Your task to perform on an android device: Open location settings Image 0: 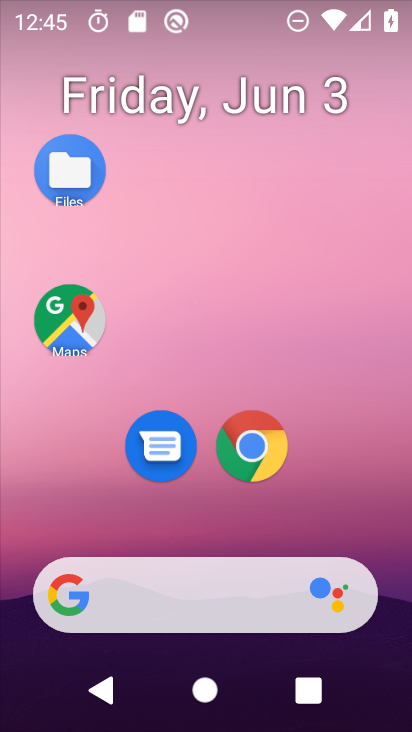
Step 0: drag from (250, 624) to (156, 101)
Your task to perform on an android device: Open location settings Image 1: 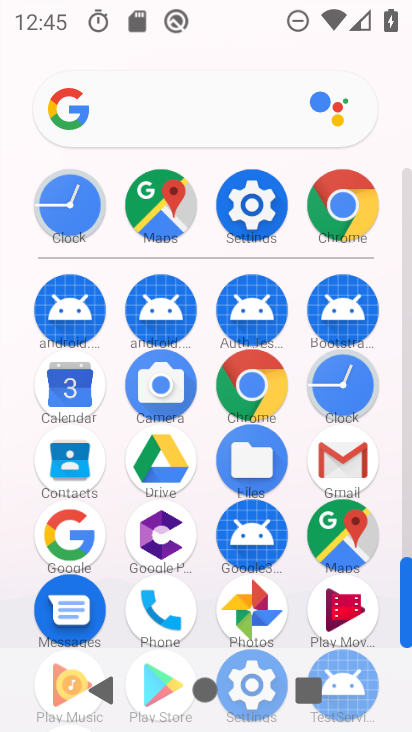
Step 1: click (251, 196)
Your task to perform on an android device: Open location settings Image 2: 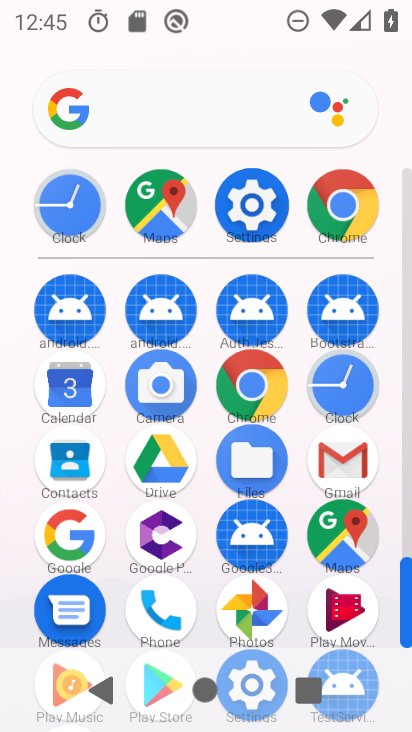
Step 2: click (251, 199)
Your task to perform on an android device: Open location settings Image 3: 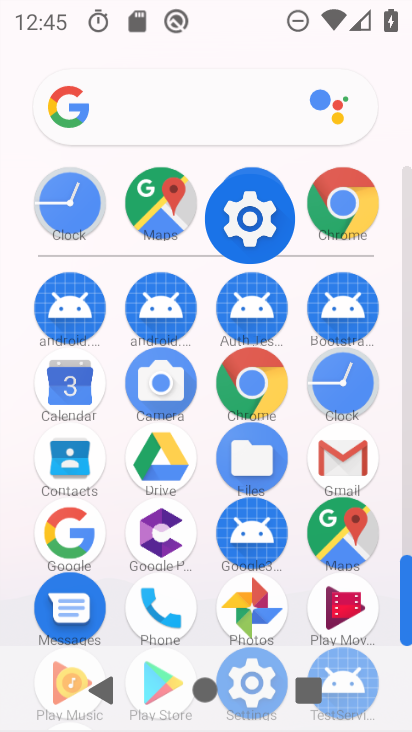
Step 3: click (249, 207)
Your task to perform on an android device: Open location settings Image 4: 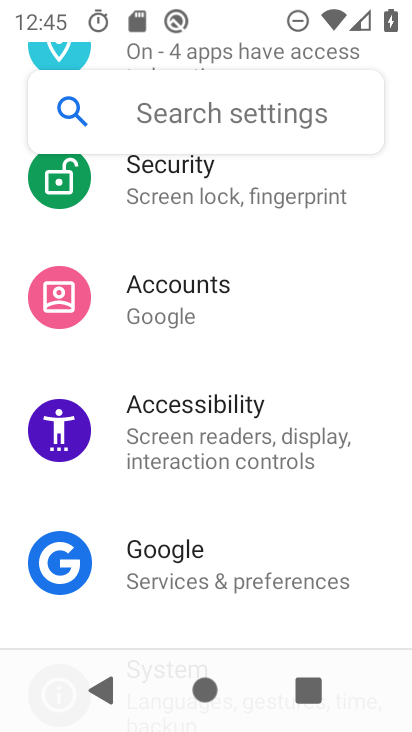
Step 4: click (247, 209)
Your task to perform on an android device: Open location settings Image 5: 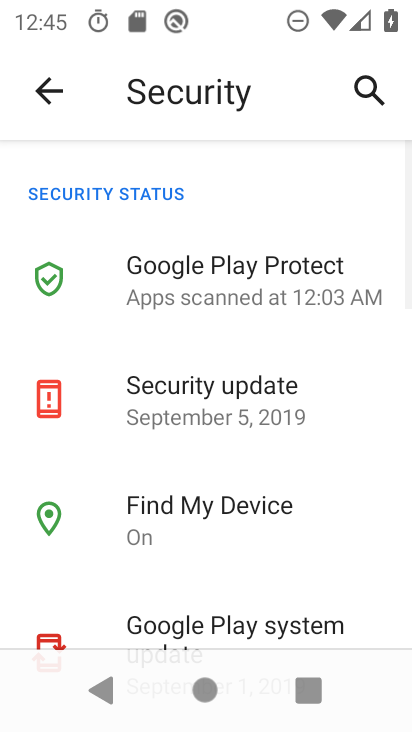
Step 5: click (41, 97)
Your task to perform on an android device: Open location settings Image 6: 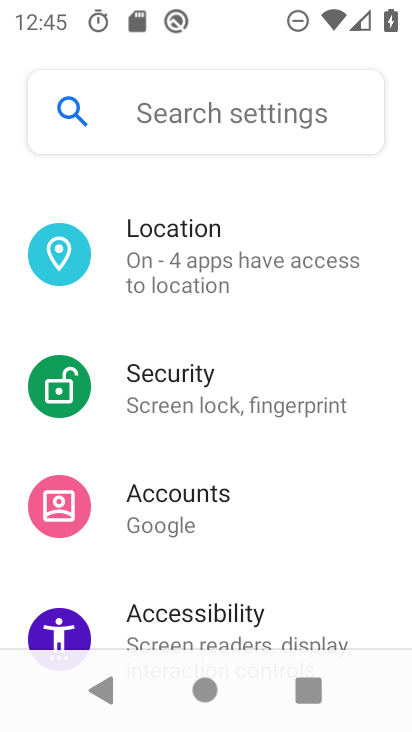
Step 6: click (155, 51)
Your task to perform on an android device: Open location settings Image 7: 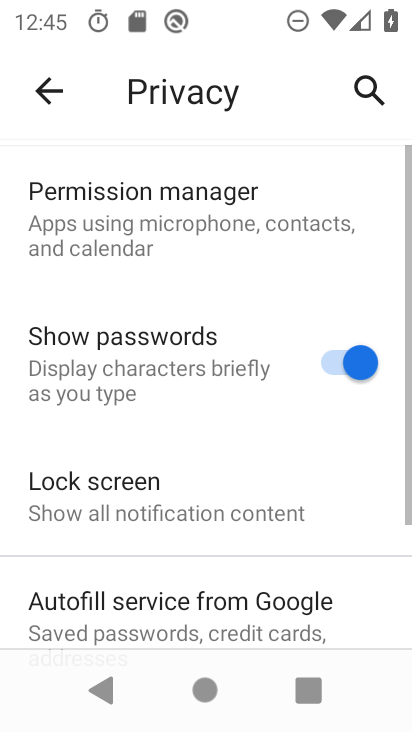
Step 7: click (124, 222)
Your task to perform on an android device: Open location settings Image 8: 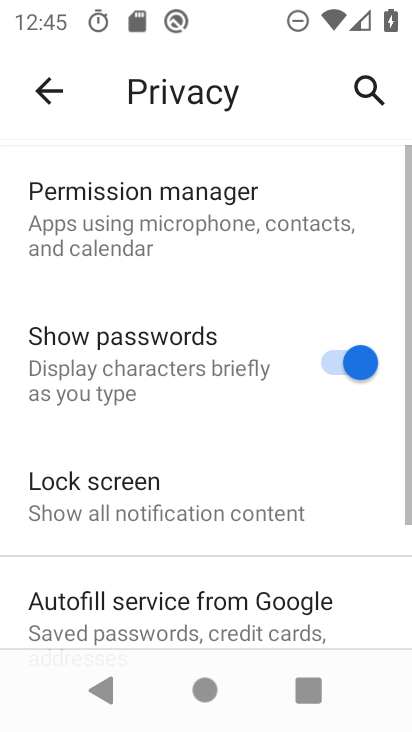
Step 8: click (143, 259)
Your task to perform on an android device: Open location settings Image 9: 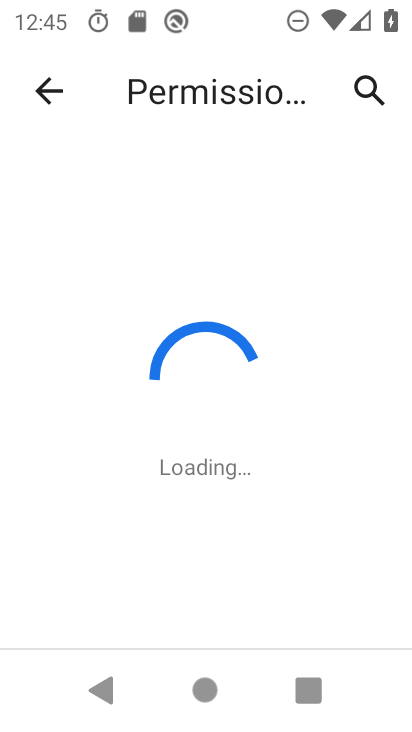
Step 9: drag from (222, 493) to (220, 297)
Your task to perform on an android device: Open location settings Image 10: 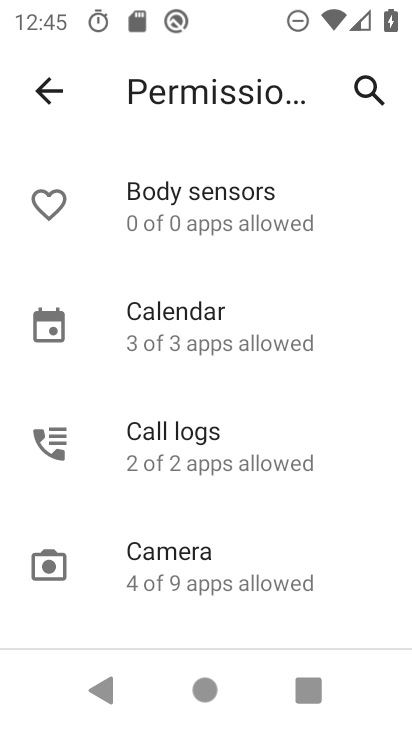
Step 10: drag from (288, 594) to (268, 307)
Your task to perform on an android device: Open location settings Image 11: 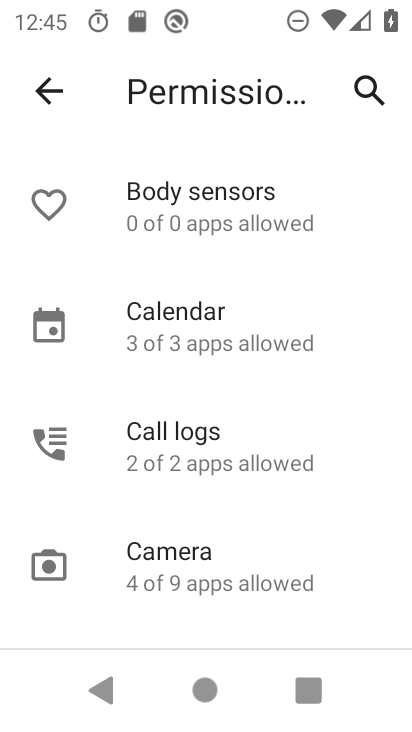
Step 11: drag from (214, 272) to (45, 89)
Your task to perform on an android device: Open location settings Image 12: 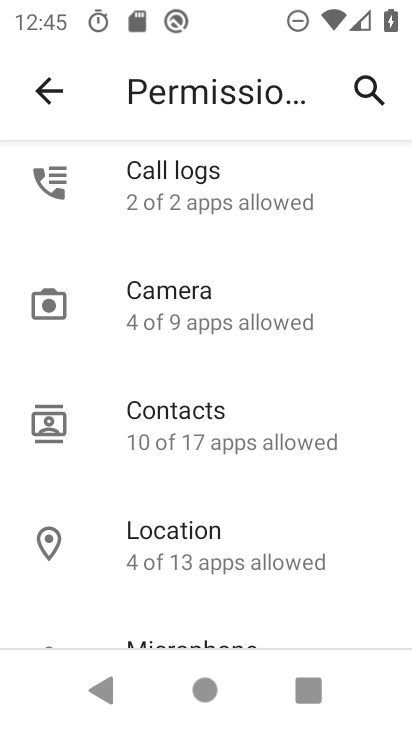
Step 12: click (158, 543)
Your task to perform on an android device: Open location settings Image 13: 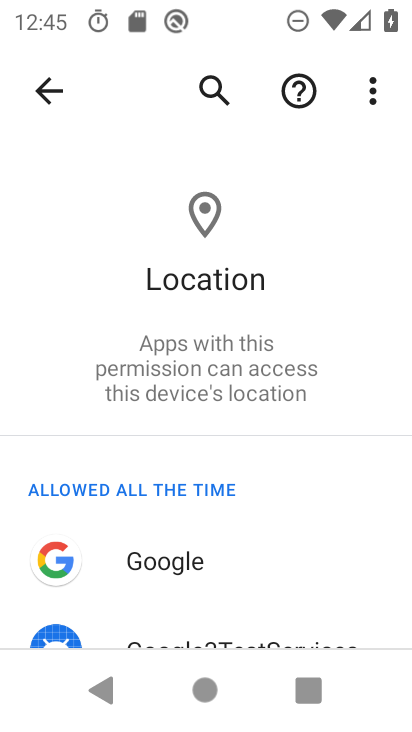
Step 13: task complete